Your task to perform on an android device: open app "Facebook Messenger" Image 0: 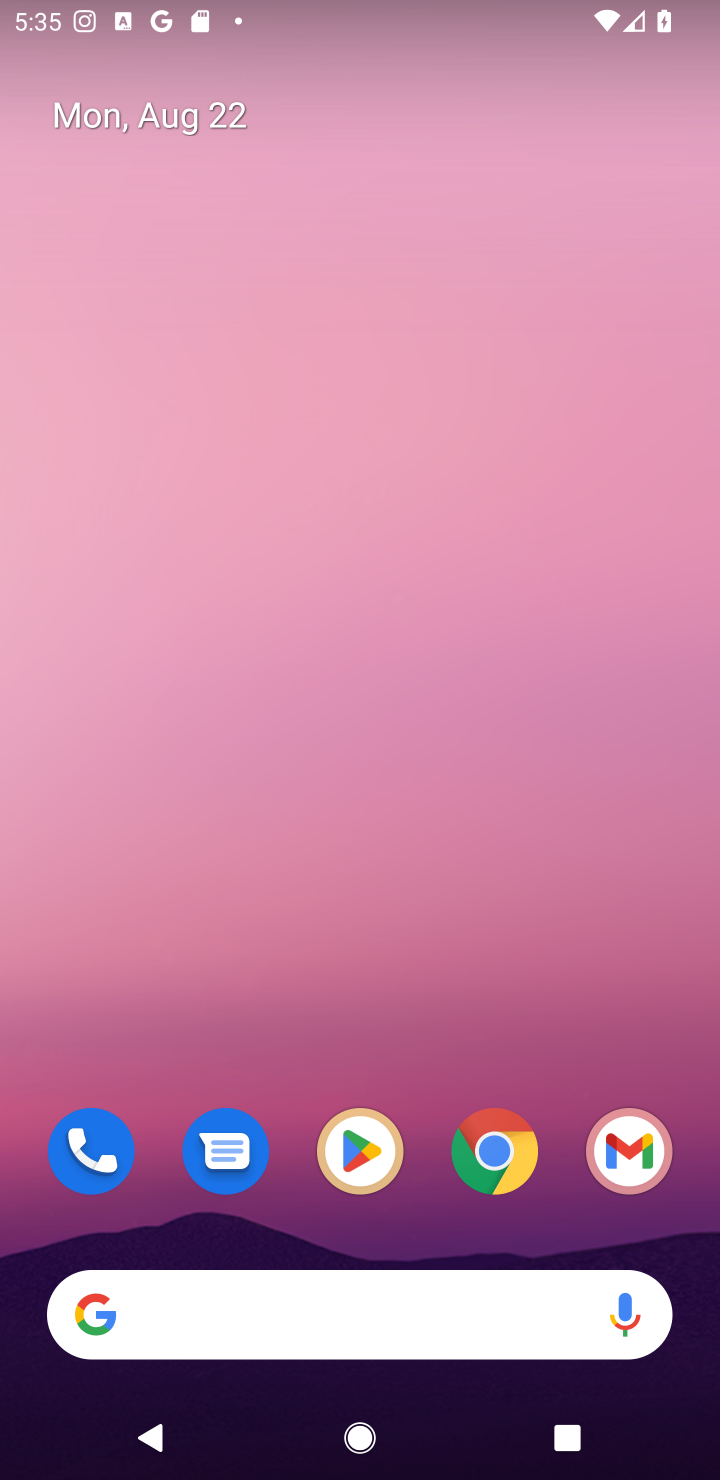
Step 0: click (348, 1149)
Your task to perform on an android device: open app "Facebook Messenger" Image 1: 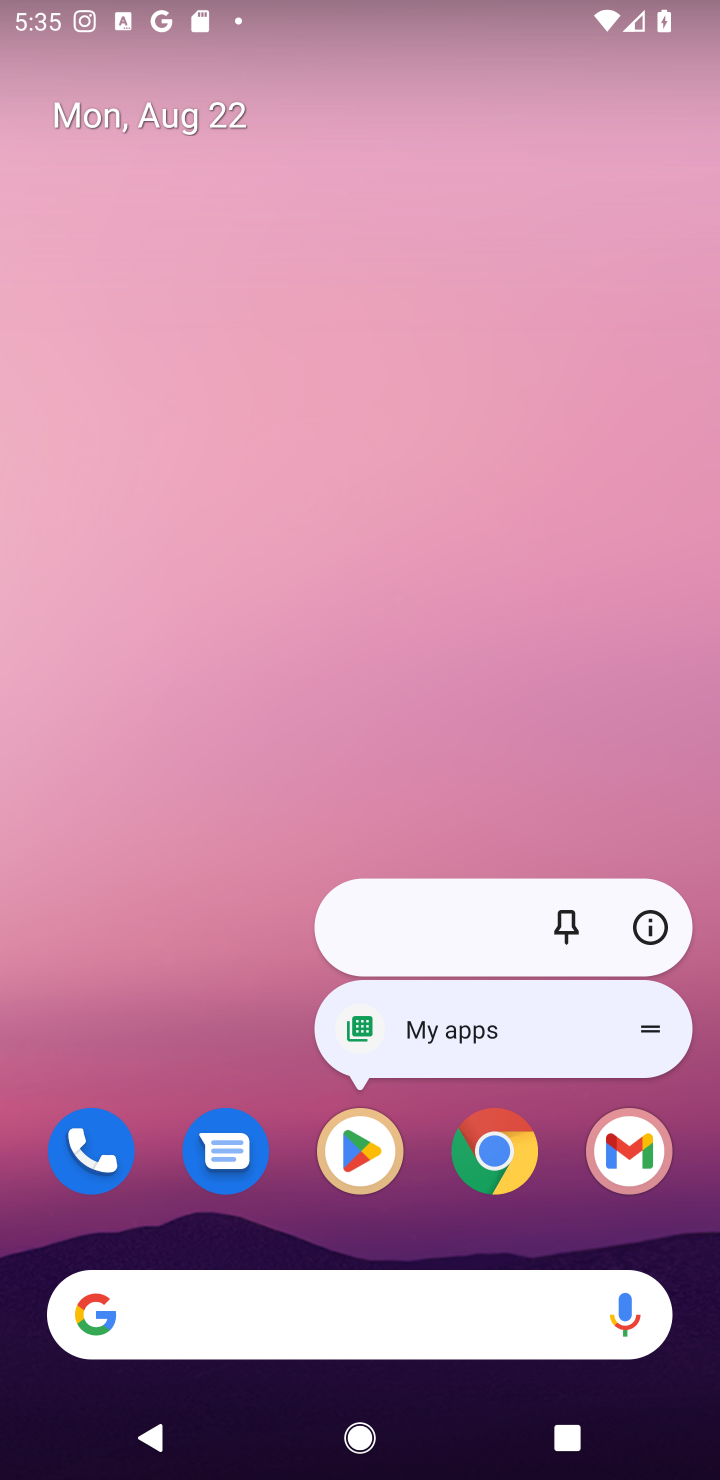
Step 1: click (348, 1155)
Your task to perform on an android device: open app "Facebook Messenger" Image 2: 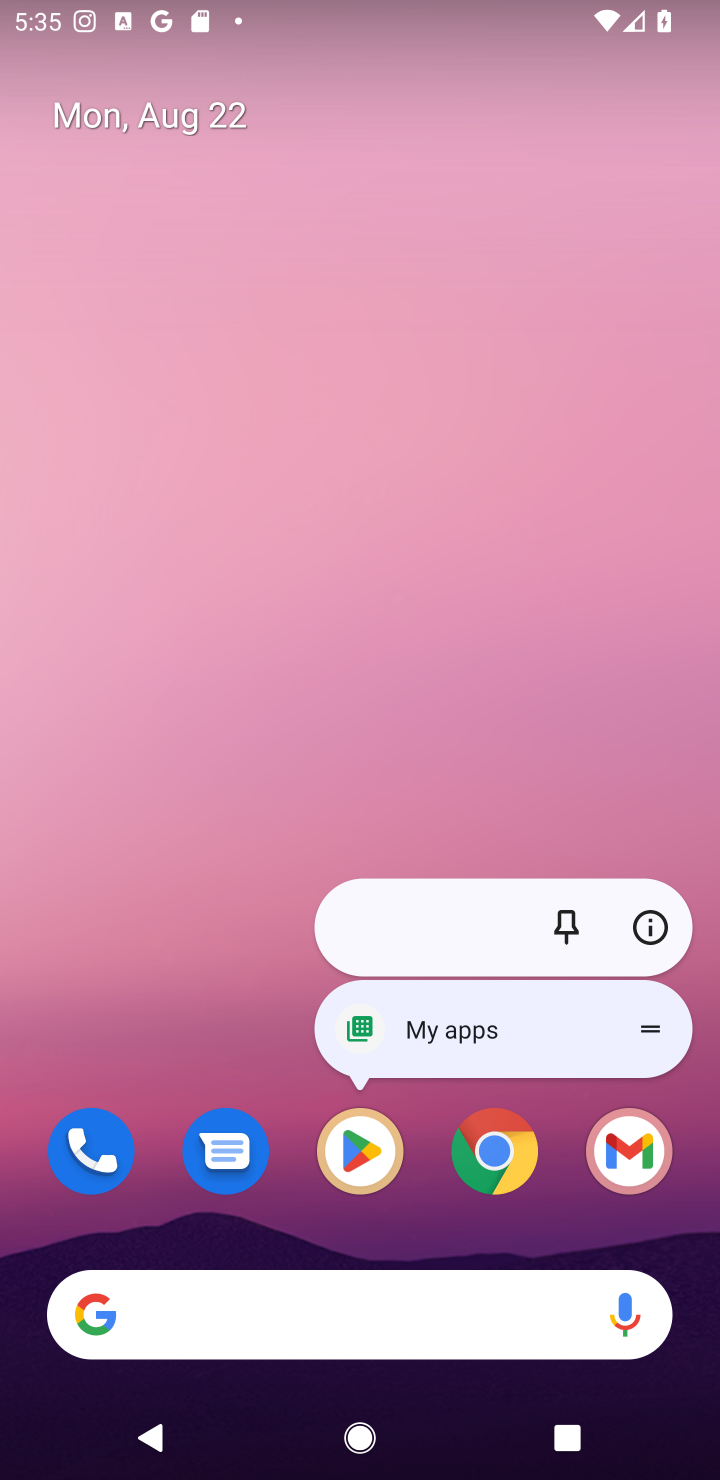
Step 2: click (348, 1158)
Your task to perform on an android device: open app "Facebook Messenger" Image 3: 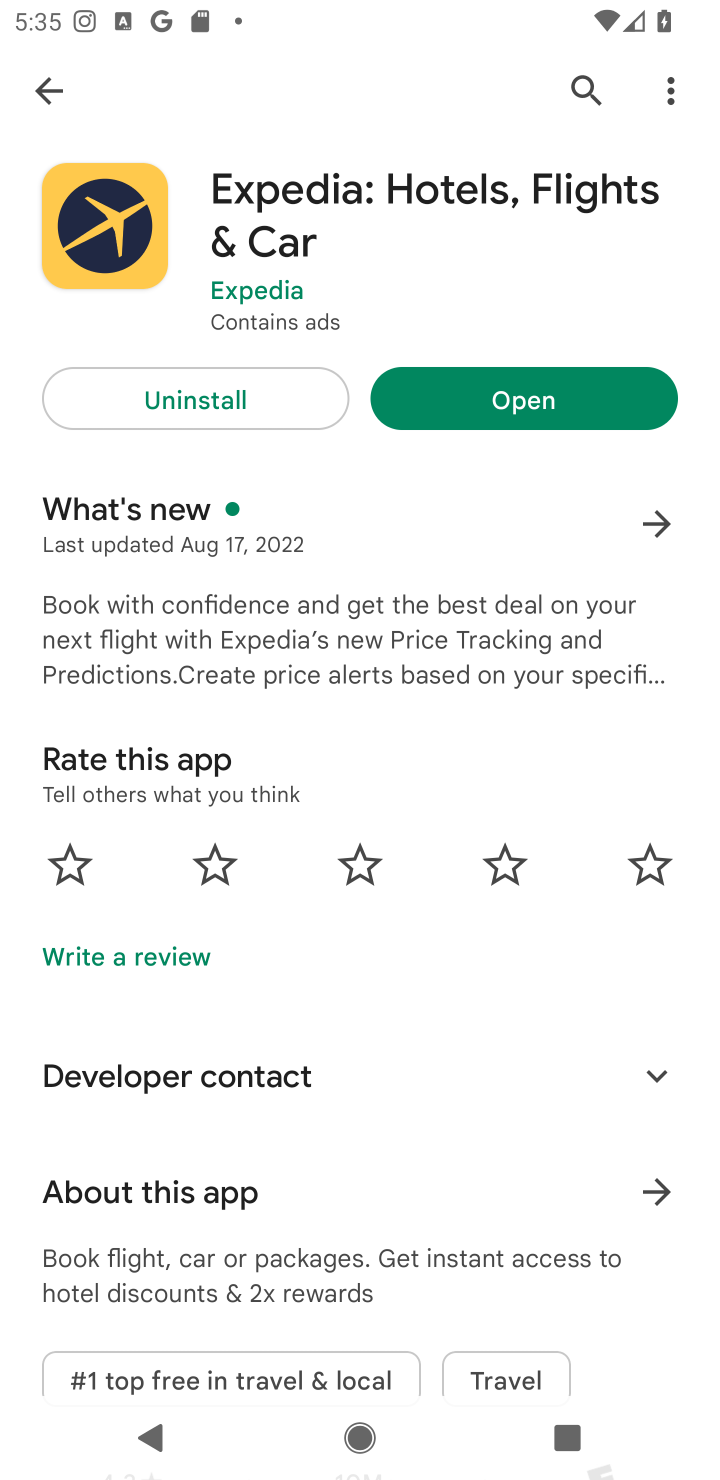
Step 3: click (577, 71)
Your task to perform on an android device: open app "Facebook Messenger" Image 4: 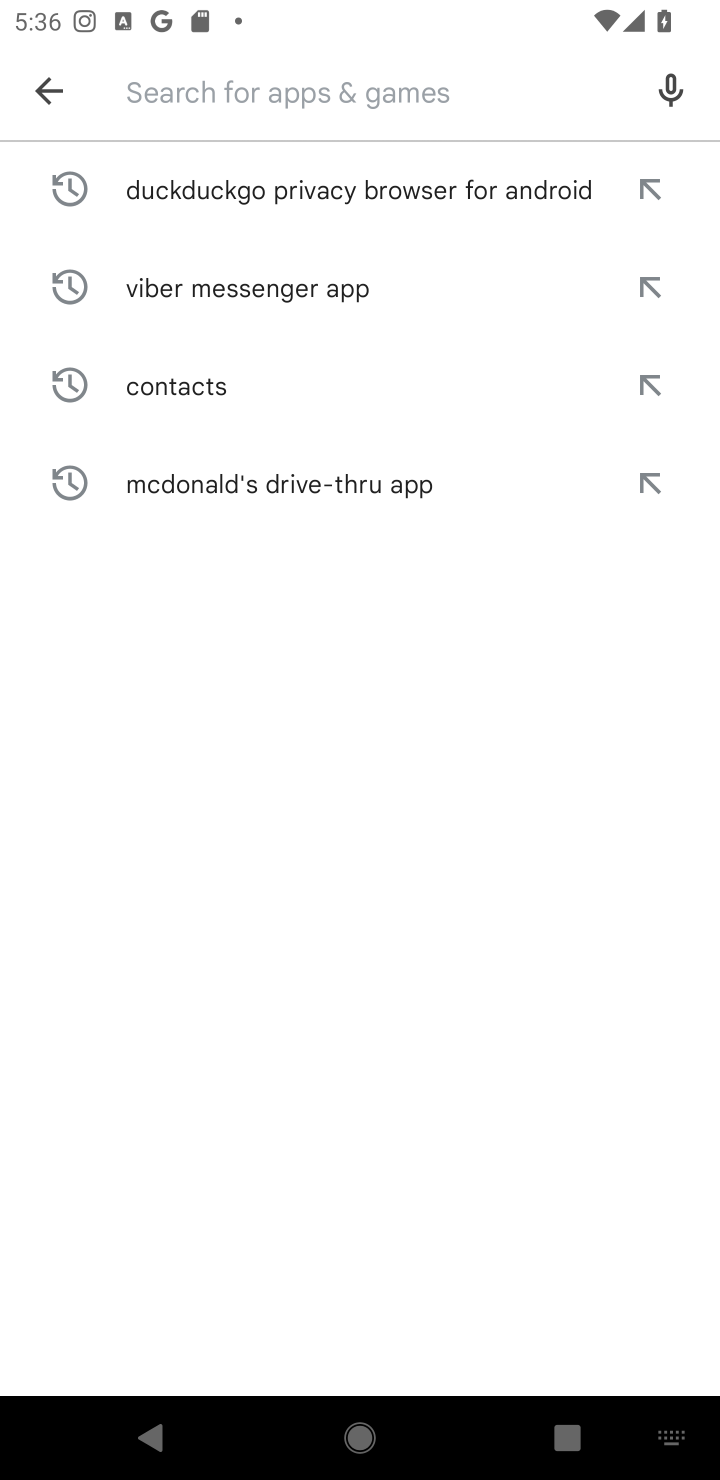
Step 4: type "Facebook Messenger"
Your task to perform on an android device: open app "Facebook Messenger" Image 5: 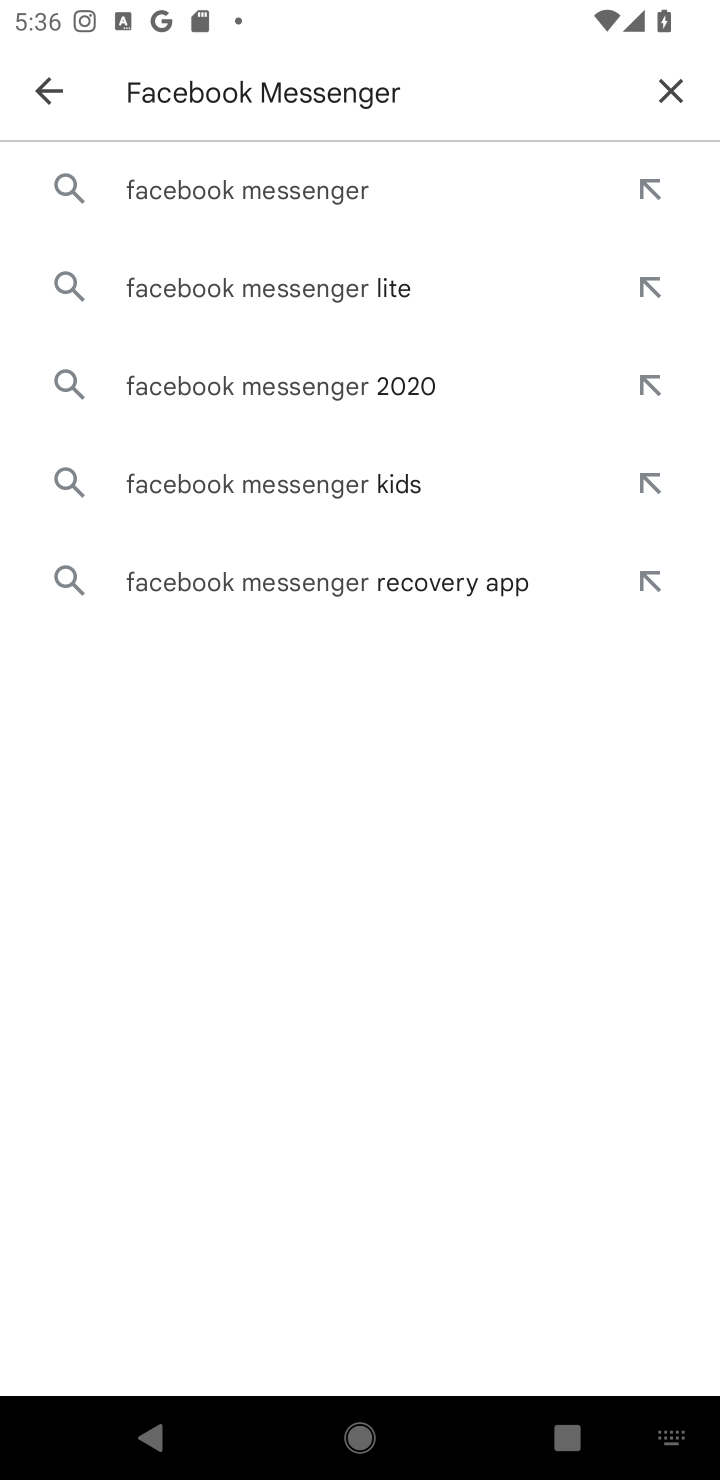
Step 5: click (280, 186)
Your task to perform on an android device: open app "Facebook Messenger" Image 6: 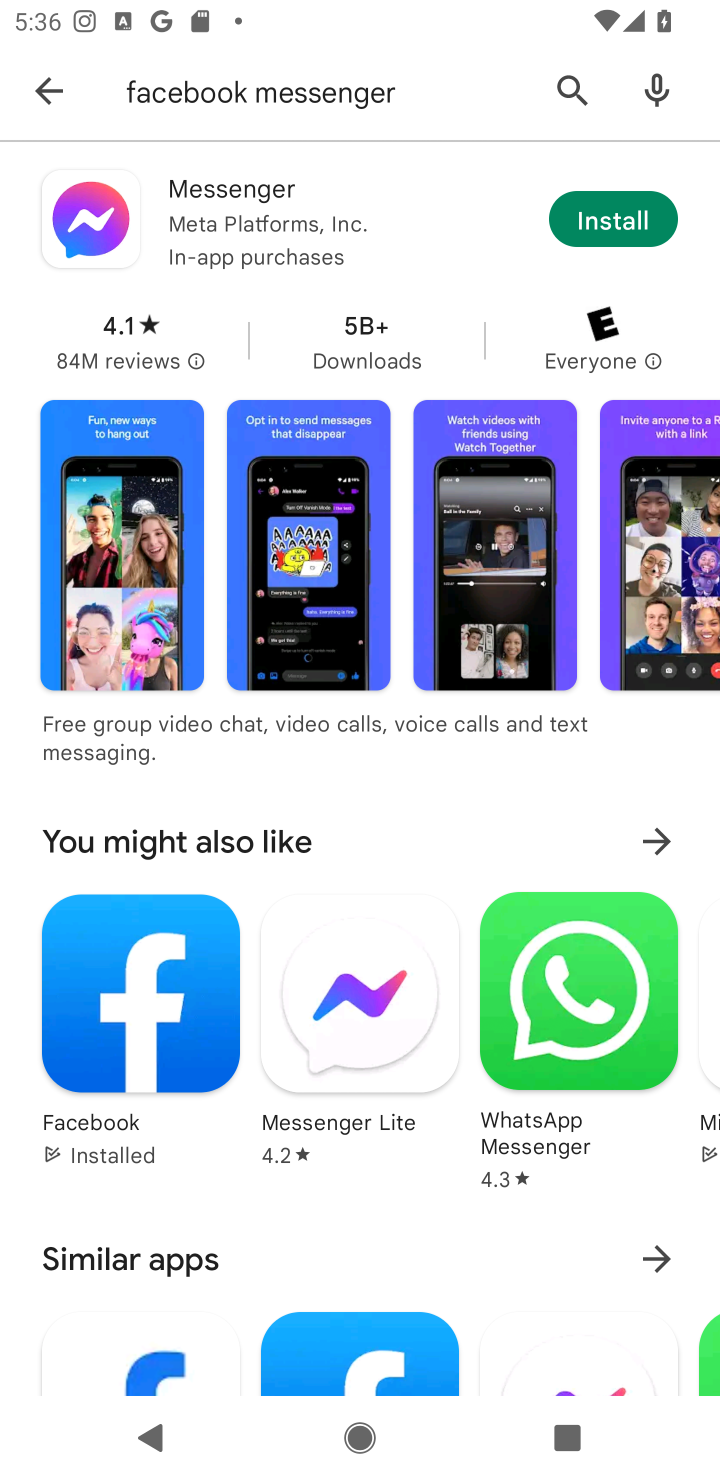
Step 6: task complete